Your task to perform on an android device: turn off notifications settings in the gmail app Image 0: 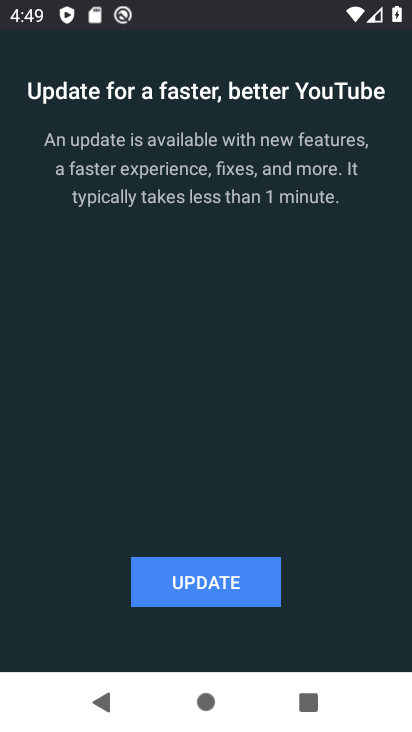
Step 0: press home button
Your task to perform on an android device: turn off notifications settings in the gmail app Image 1: 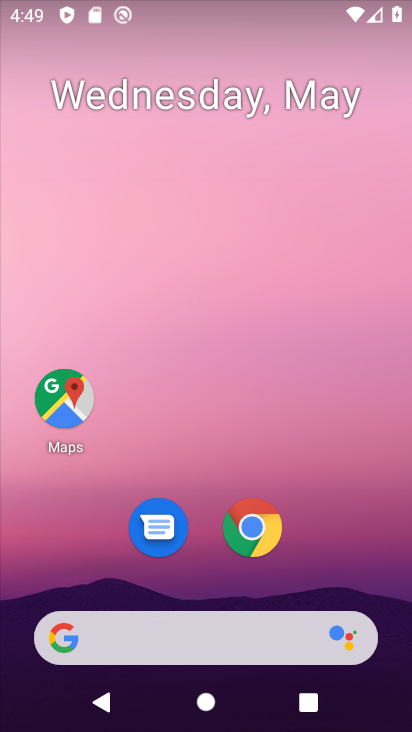
Step 1: drag from (246, 263) to (183, 25)
Your task to perform on an android device: turn off notifications settings in the gmail app Image 2: 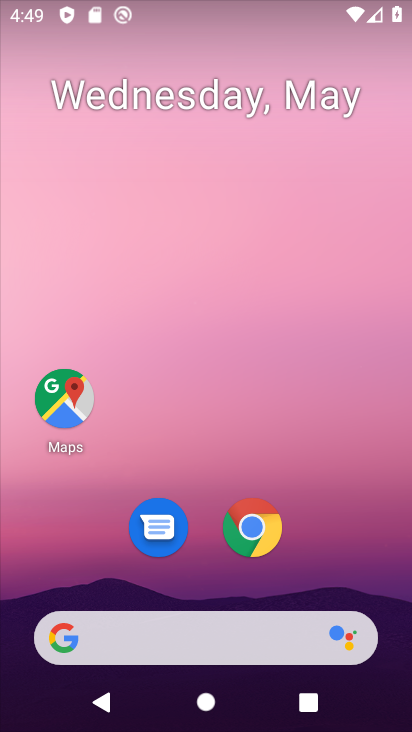
Step 2: drag from (206, 556) to (277, 171)
Your task to perform on an android device: turn off notifications settings in the gmail app Image 3: 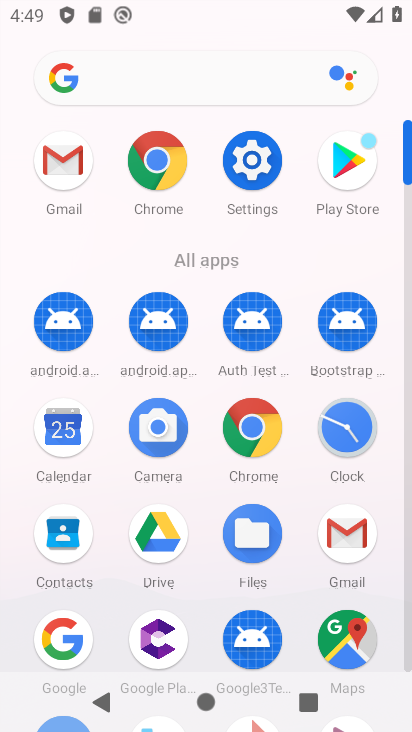
Step 3: click (348, 523)
Your task to perform on an android device: turn off notifications settings in the gmail app Image 4: 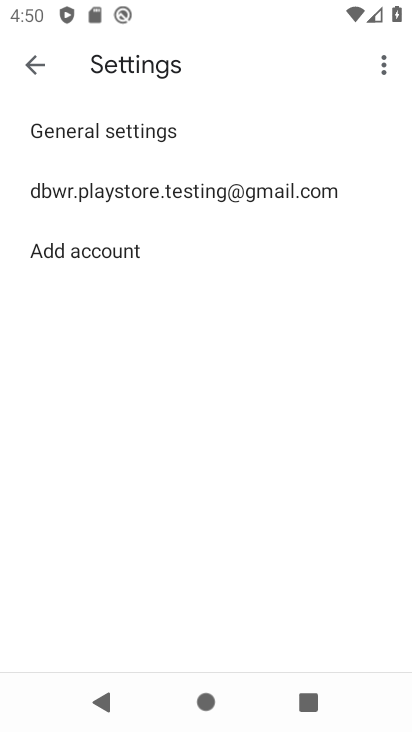
Step 4: click (209, 185)
Your task to perform on an android device: turn off notifications settings in the gmail app Image 5: 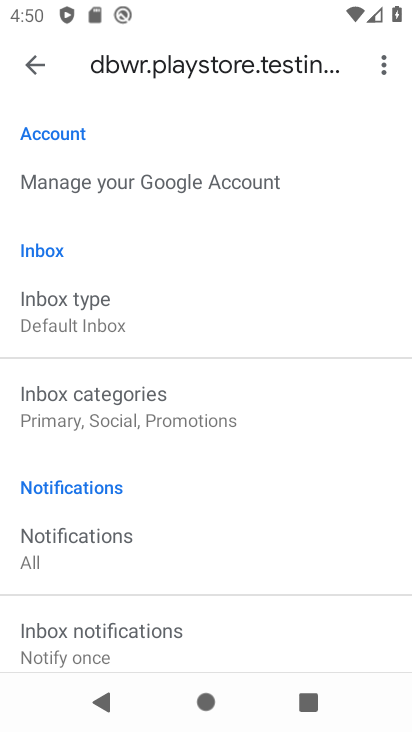
Step 5: click (76, 551)
Your task to perform on an android device: turn off notifications settings in the gmail app Image 6: 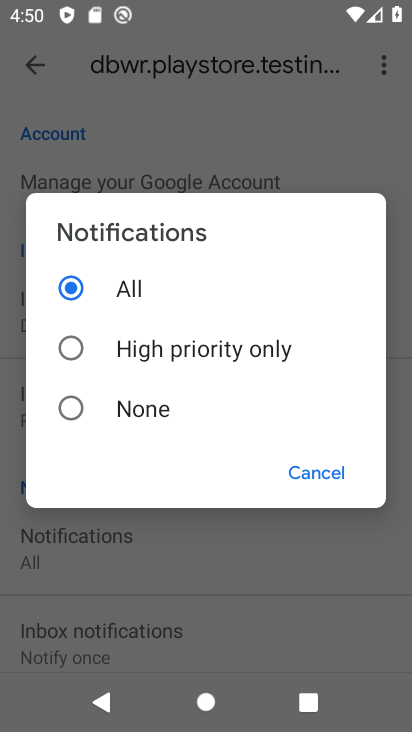
Step 6: click (68, 416)
Your task to perform on an android device: turn off notifications settings in the gmail app Image 7: 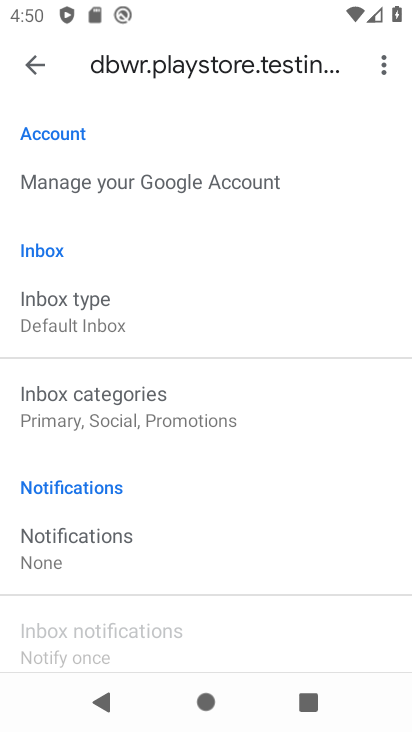
Step 7: task complete